Your task to perform on an android device: Add "dell alienware" to the cart on ebay Image 0: 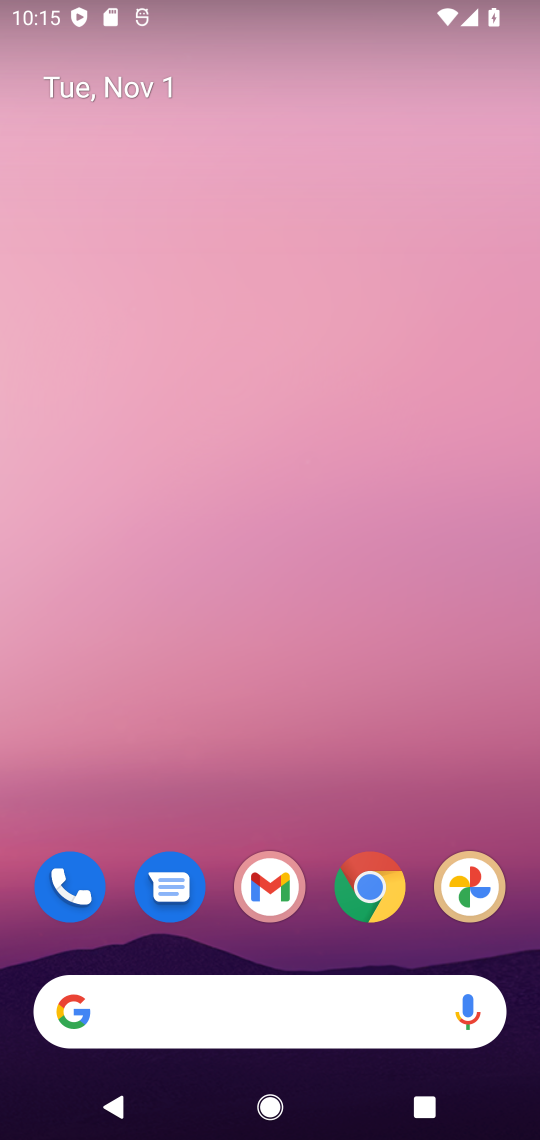
Step 0: click (352, 879)
Your task to perform on an android device: Add "dell alienware" to the cart on ebay Image 1: 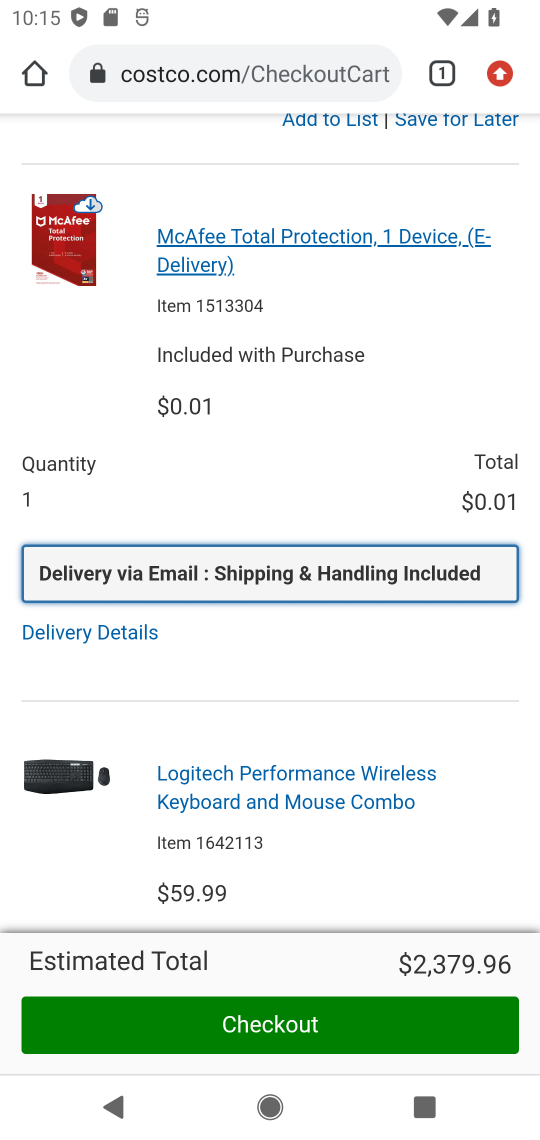
Step 1: click (321, 2)
Your task to perform on an android device: Add "dell alienware" to the cart on ebay Image 2: 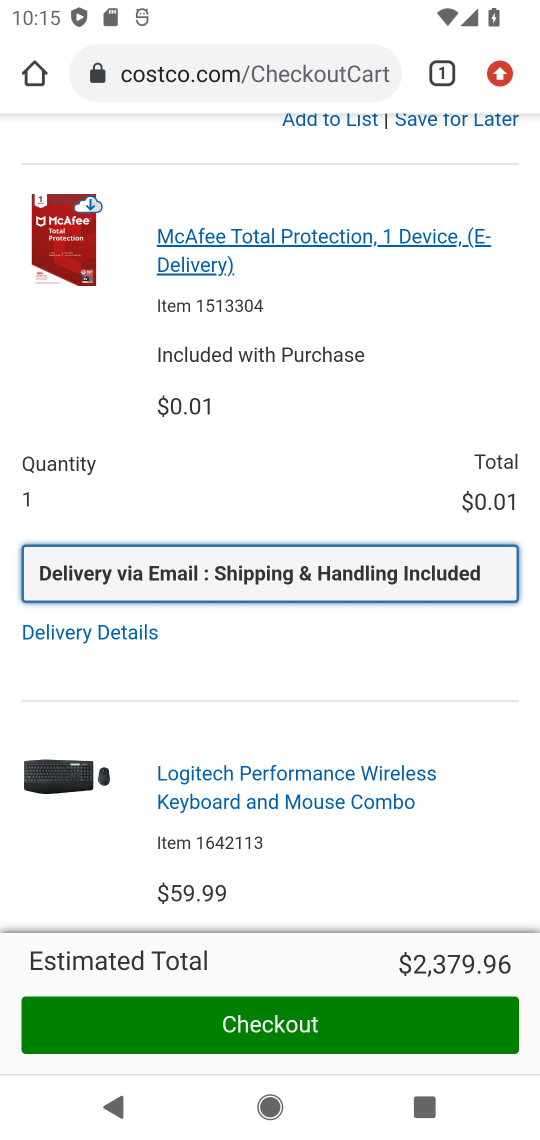
Step 2: click (320, 71)
Your task to perform on an android device: Add "dell alienware" to the cart on ebay Image 3: 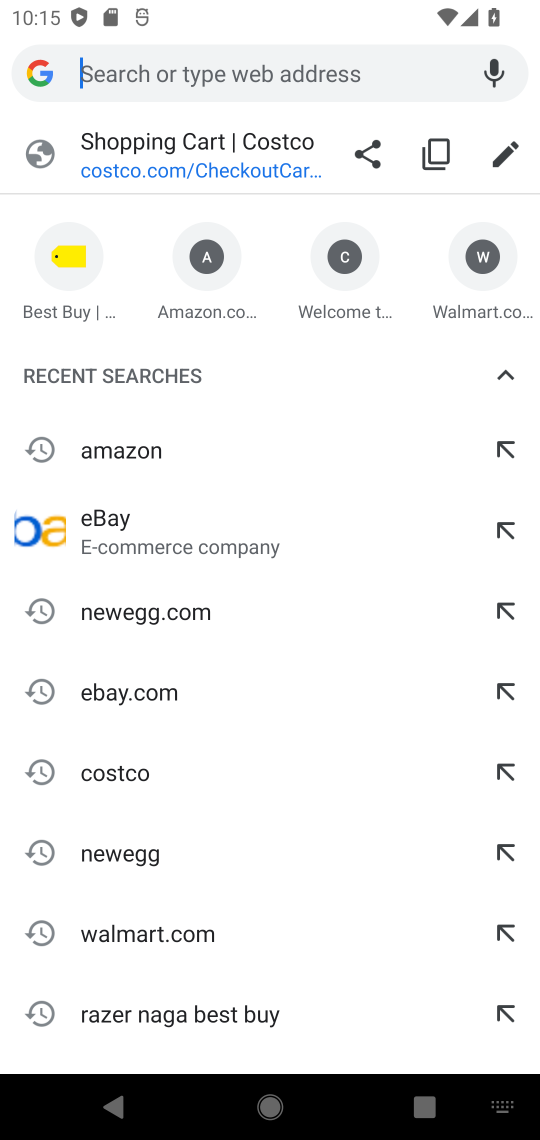
Step 3: click (112, 520)
Your task to perform on an android device: Add "dell alienware" to the cart on ebay Image 4: 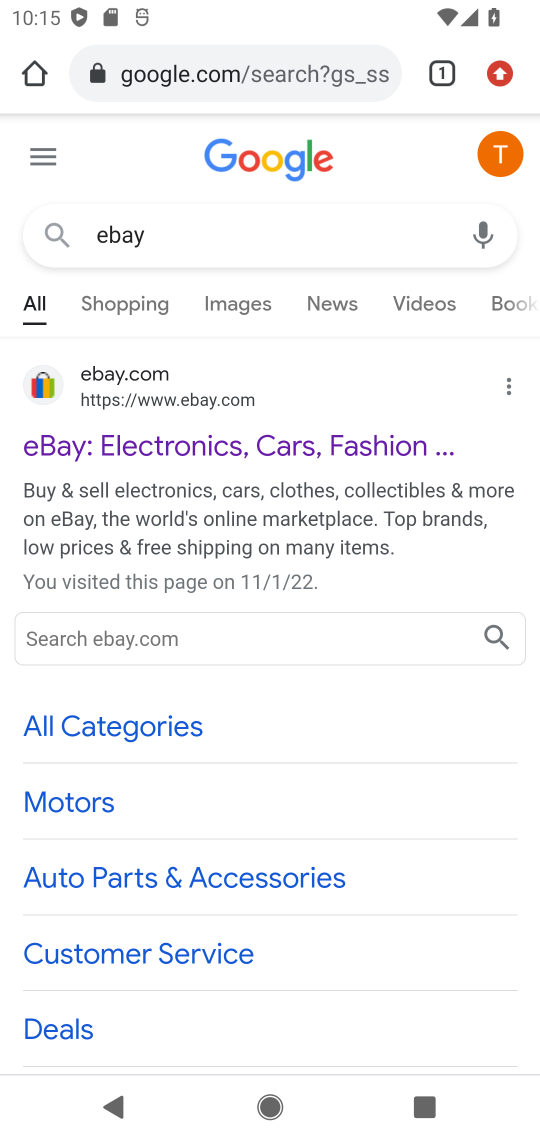
Step 4: click (162, 455)
Your task to perform on an android device: Add "dell alienware" to the cart on ebay Image 5: 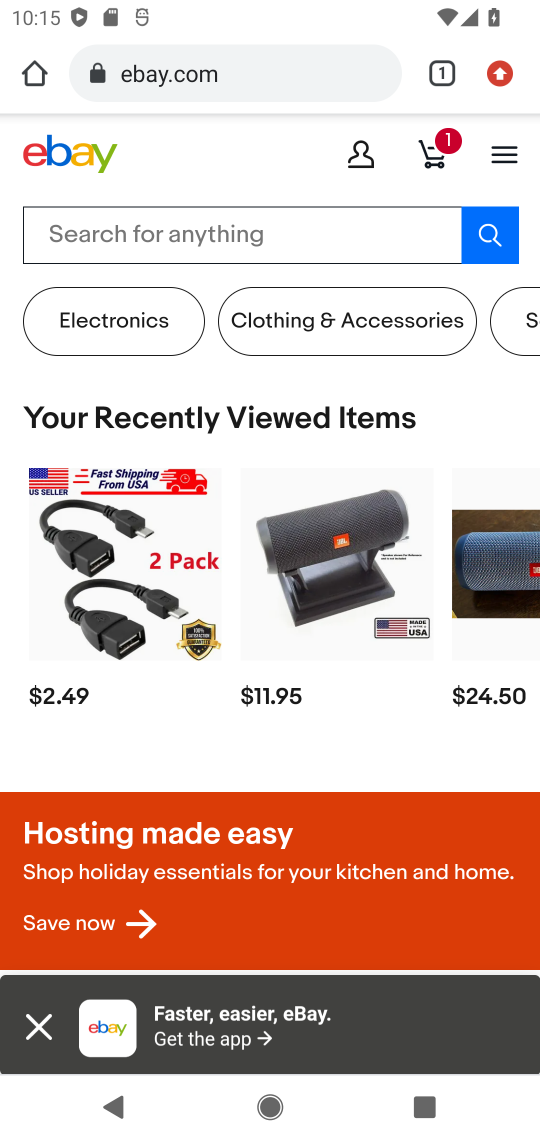
Step 5: click (278, 242)
Your task to perform on an android device: Add "dell alienware" to the cart on ebay Image 6: 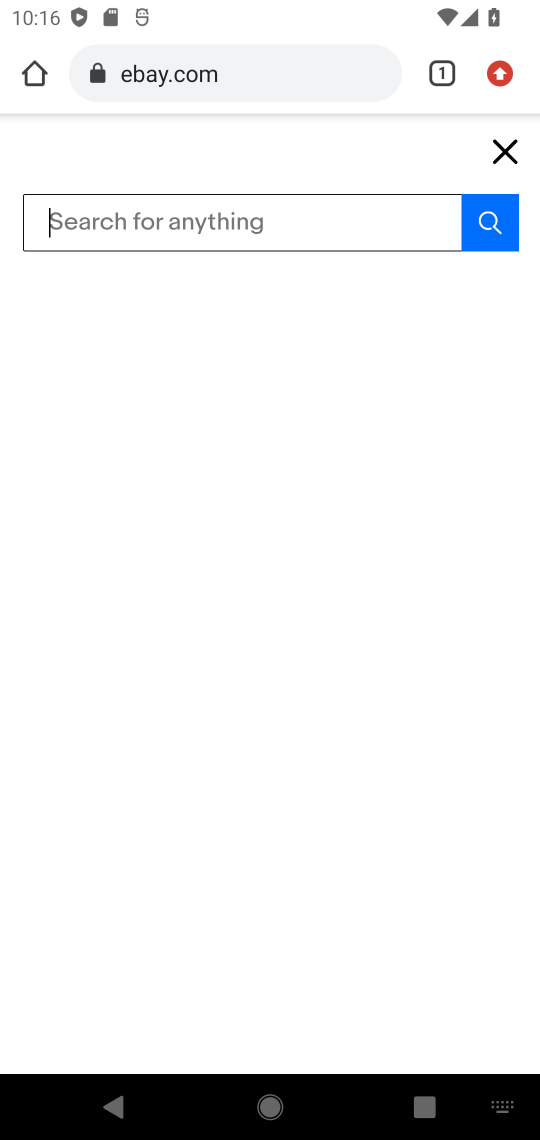
Step 6: type "dell alienware"
Your task to perform on an android device: Add "dell alienware" to the cart on ebay Image 7: 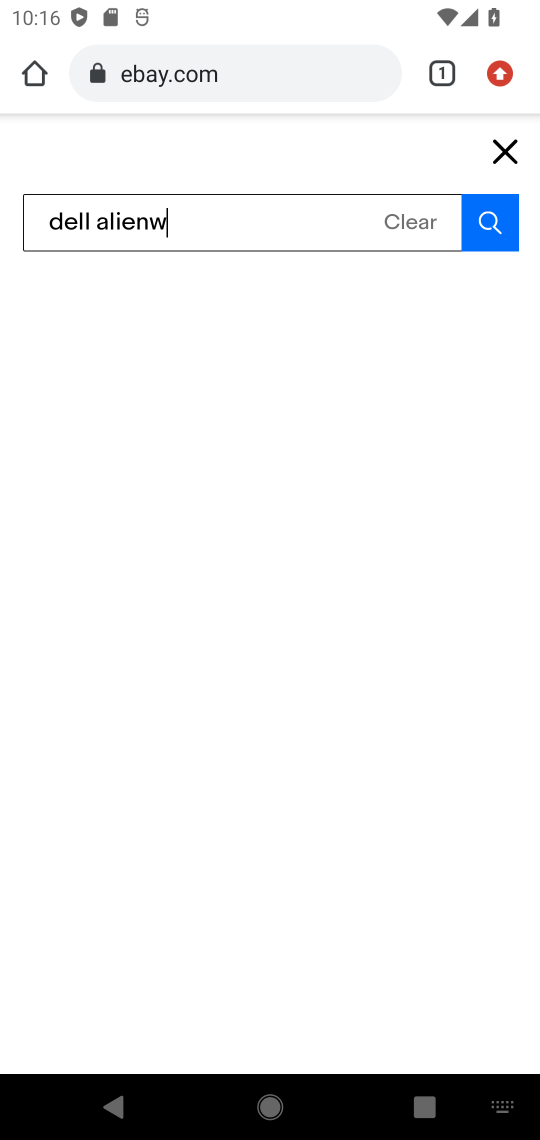
Step 7: press enter
Your task to perform on an android device: Add "dell alienware" to the cart on ebay Image 8: 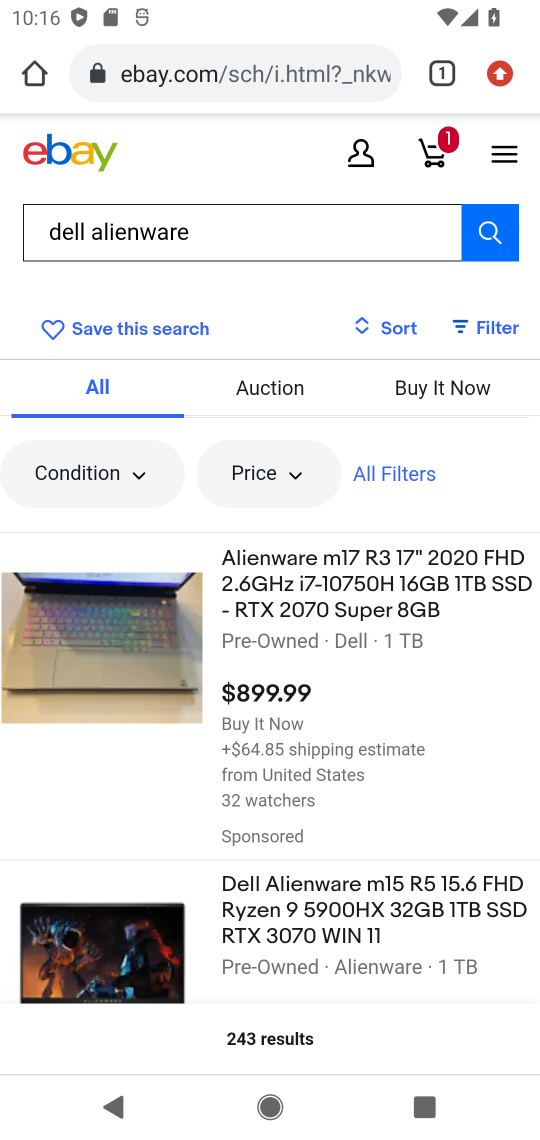
Step 8: click (110, 942)
Your task to perform on an android device: Add "dell alienware" to the cart on ebay Image 9: 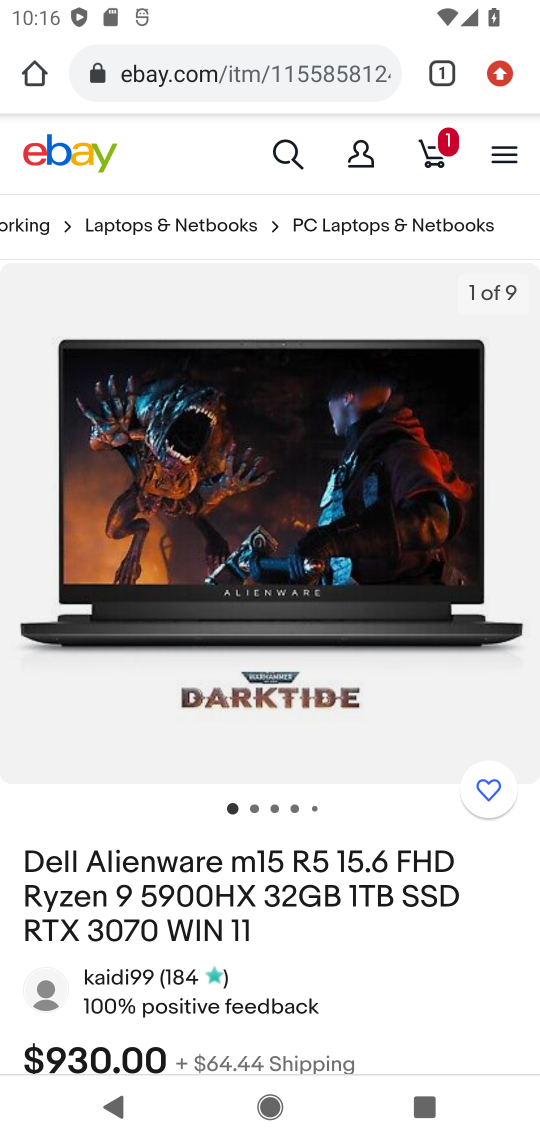
Step 9: drag from (303, 917) to (426, 435)
Your task to perform on an android device: Add "dell alienware" to the cart on ebay Image 10: 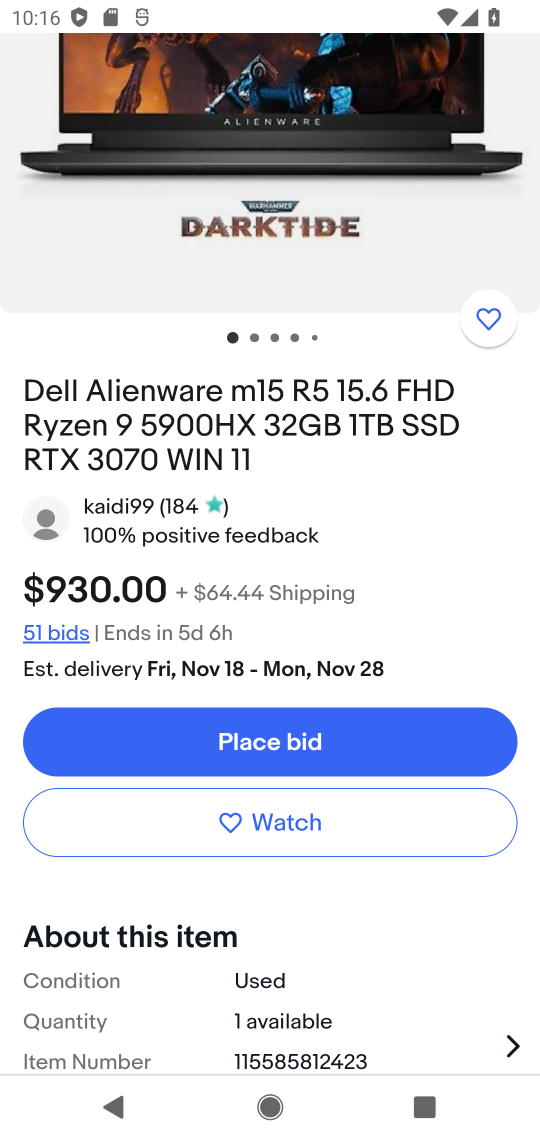
Step 10: press back button
Your task to perform on an android device: Add "dell alienware" to the cart on ebay Image 11: 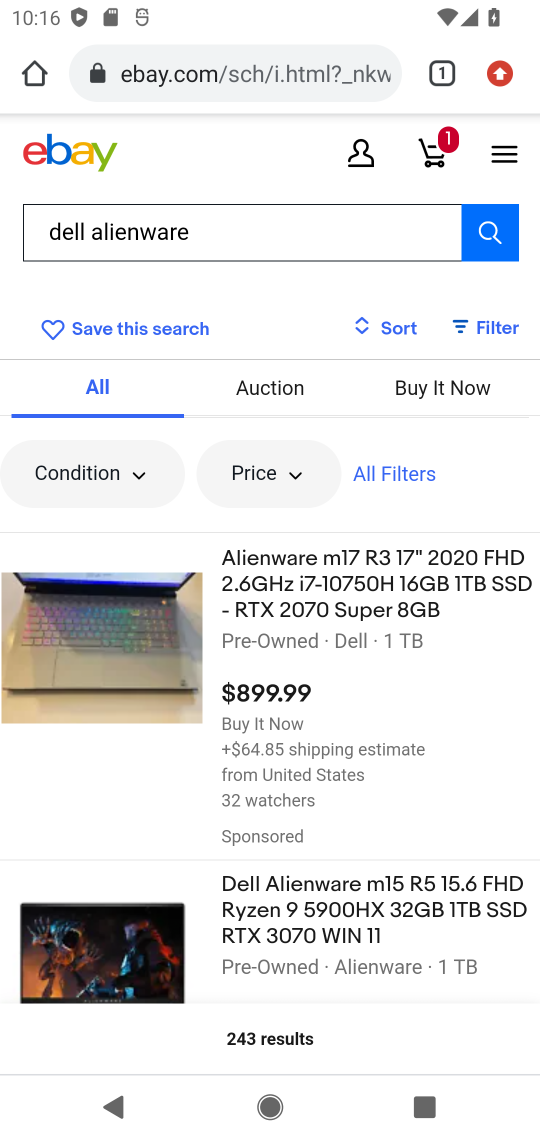
Step 11: click (137, 623)
Your task to perform on an android device: Add "dell alienware" to the cart on ebay Image 12: 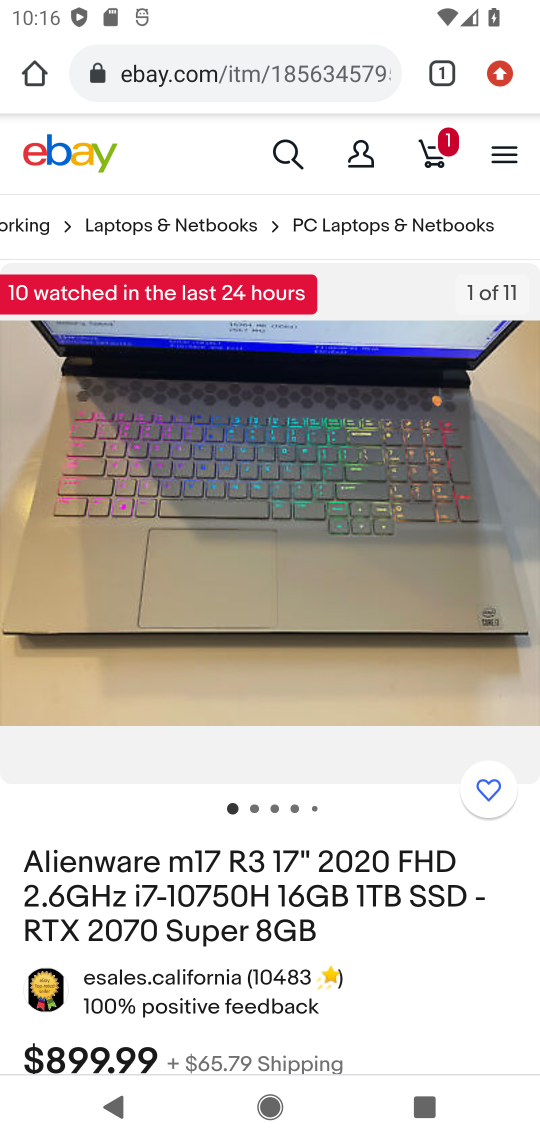
Step 12: drag from (410, 949) to (356, 472)
Your task to perform on an android device: Add "dell alienware" to the cart on ebay Image 13: 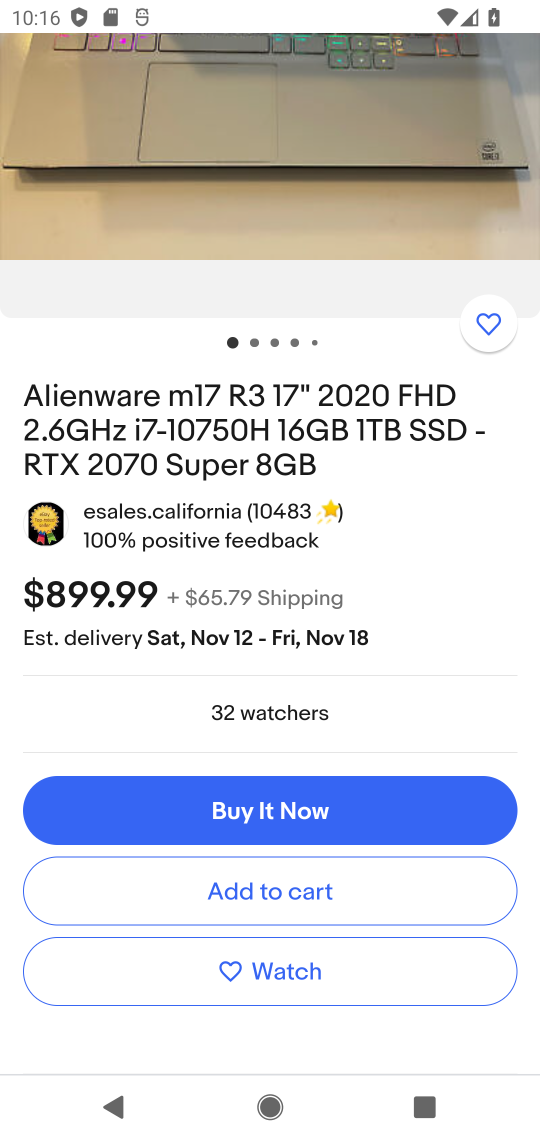
Step 13: click (374, 886)
Your task to perform on an android device: Add "dell alienware" to the cart on ebay Image 14: 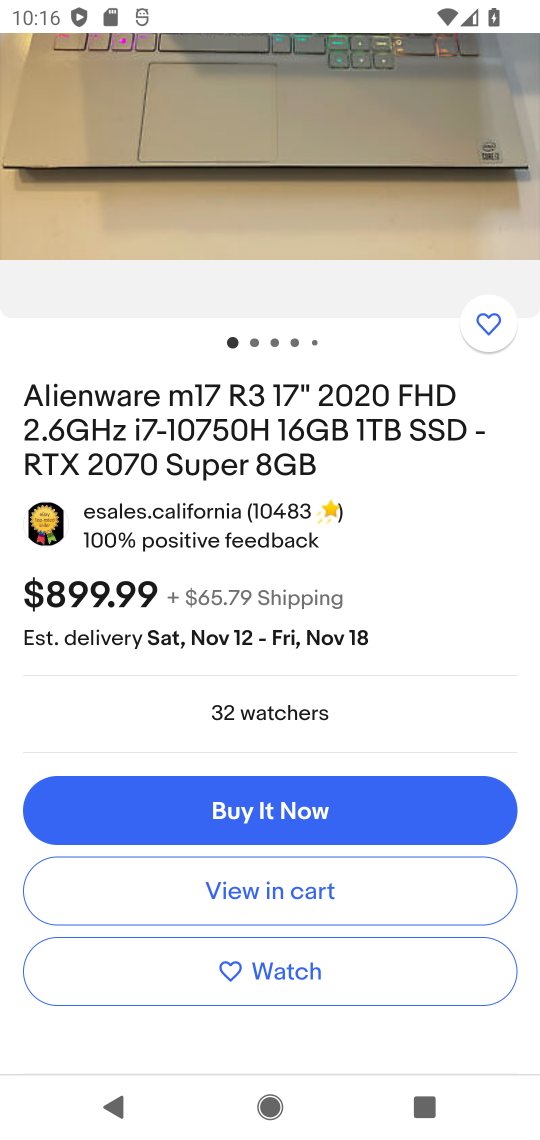
Step 14: click (274, 888)
Your task to perform on an android device: Add "dell alienware" to the cart on ebay Image 15: 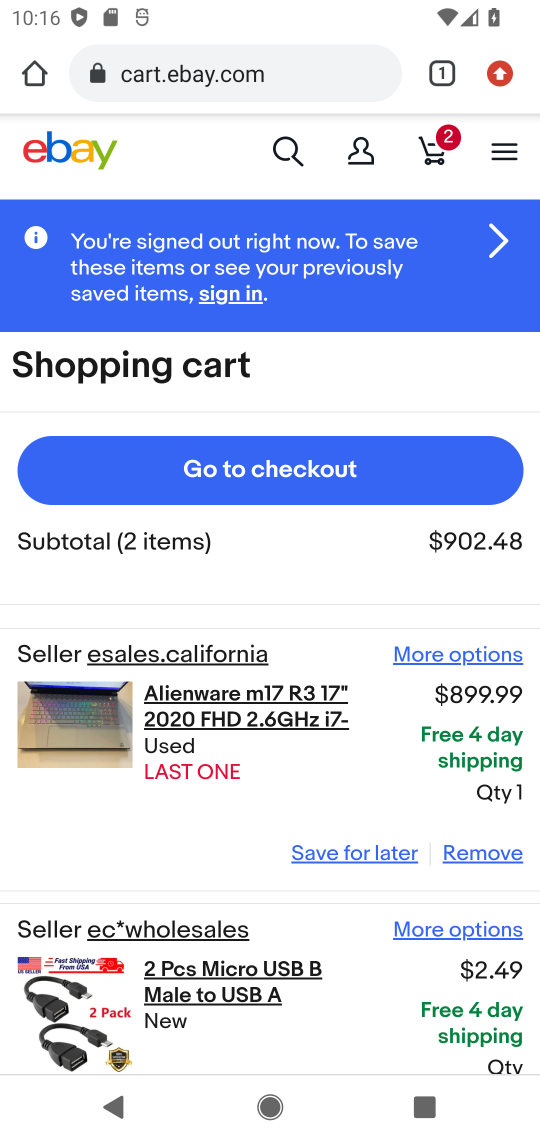
Step 15: task complete